Your task to perform on an android device: When is my next appointment? Image 0: 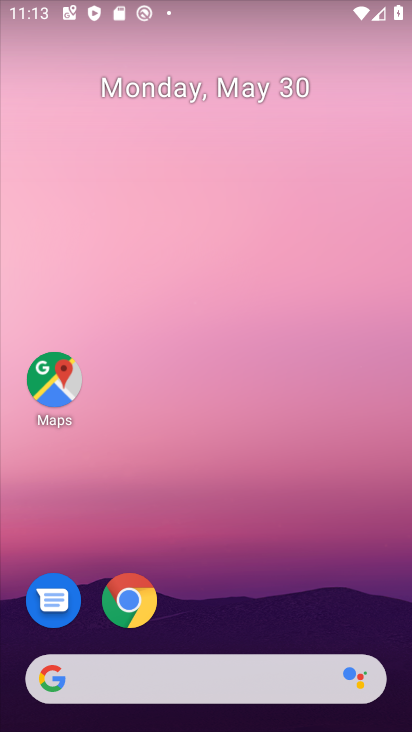
Step 0: drag from (219, 727) to (283, 22)
Your task to perform on an android device: When is my next appointment? Image 1: 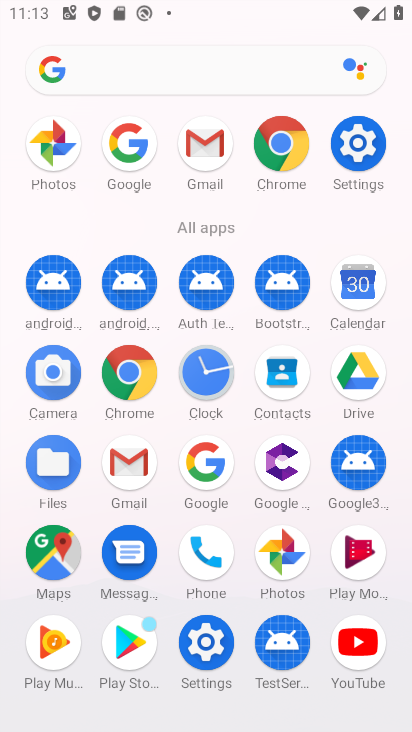
Step 1: click (355, 281)
Your task to perform on an android device: When is my next appointment? Image 2: 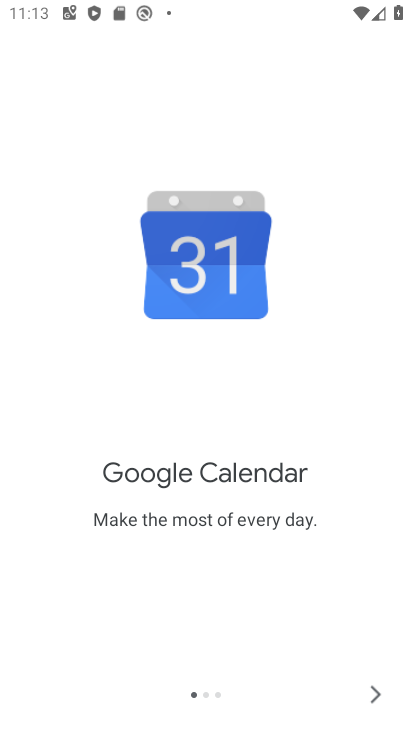
Step 2: click (380, 682)
Your task to perform on an android device: When is my next appointment? Image 3: 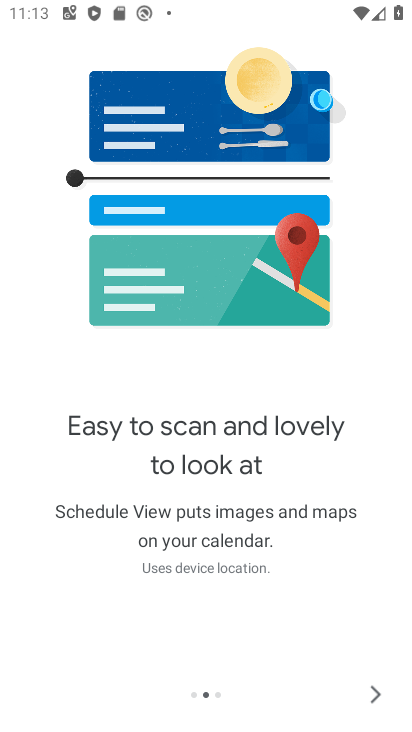
Step 3: click (375, 691)
Your task to perform on an android device: When is my next appointment? Image 4: 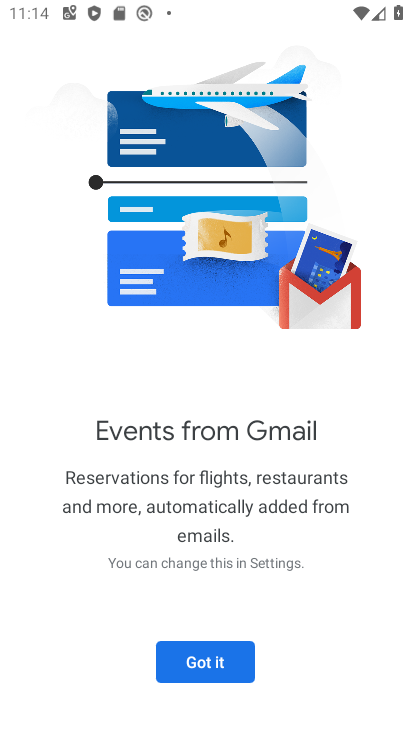
Step 4: click (211, 669)
Your task to perform on an android device: When is my next appointment? Image 5: 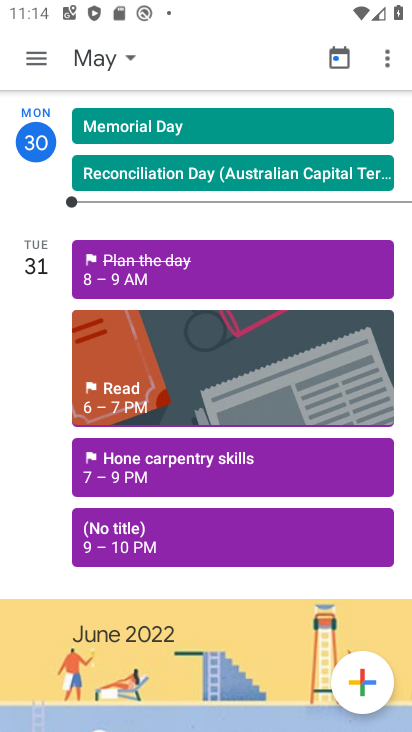
Step 5: click (129, 55)
Your task to perform on an android device: When is my next appointment? Image 6: 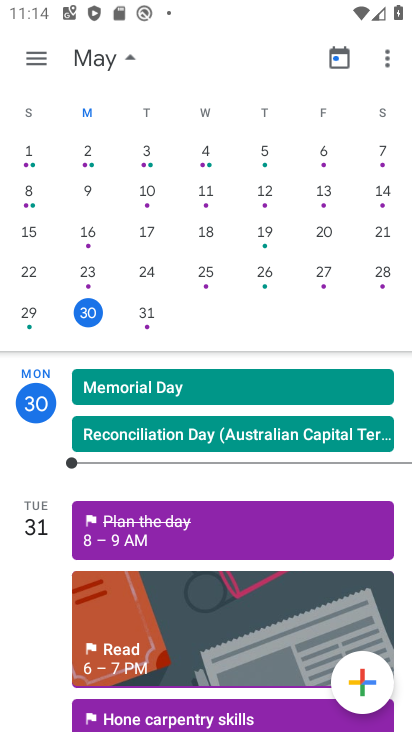
Step 6: click (146, 311)
Your task to perform on an android device: When is my next appointment? Image 7: 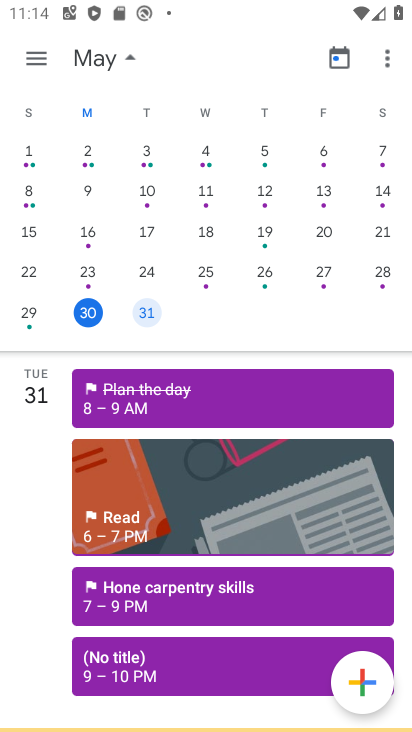
Step 7: click (145, 308)
Your task to perform on an android device: When is my next appointment? Image 8: 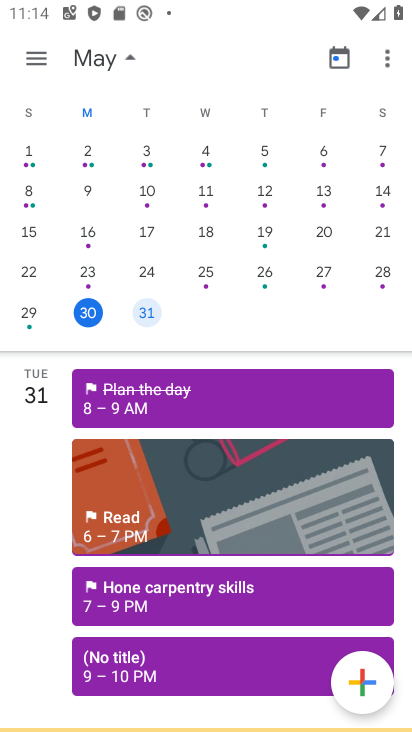
Step 8: click (134, 52)
Your task to perform on an android device: When is my next appointment? Image 9: 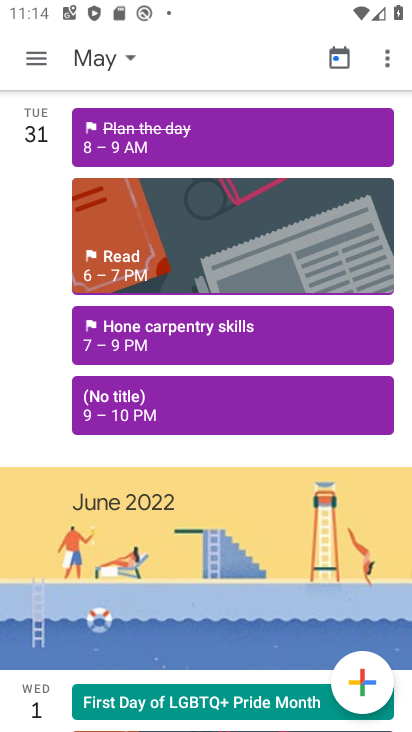
Step 9: task complete